Your task to perform on an android device: Open accessibility settings Image 0: 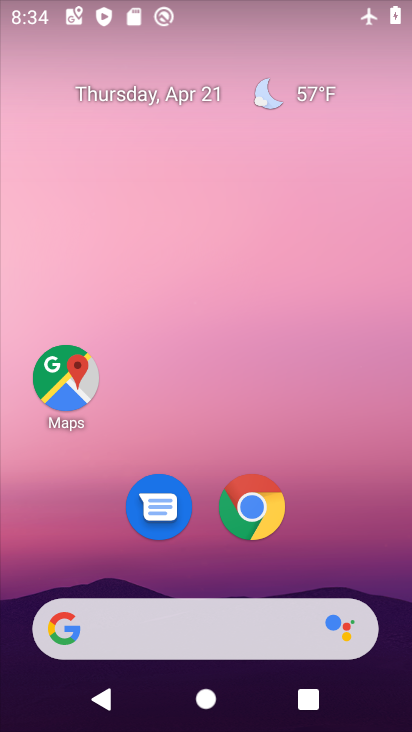
Step 0: drag from (325, 456) to (282, 33)
Your task to perform on an android device: Open accessibility settings Image 1: 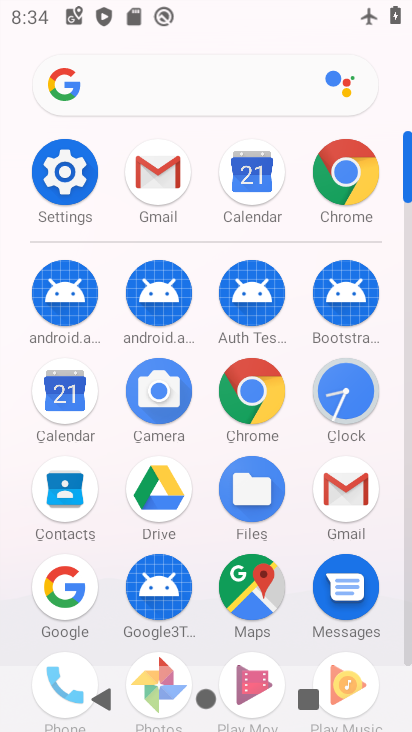
Step 1: click (408, 653)
Your task to perform on an android device: Open accessibility settings Image 2: 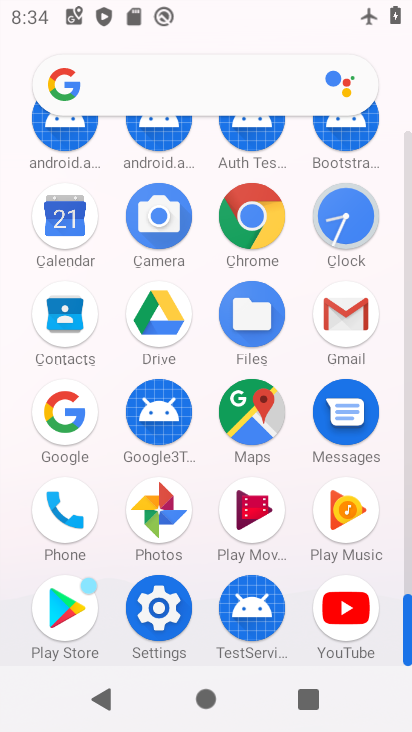
Step 2: click (140, 603)
Your task to perform on an android device: Open accessibility settings Image 3: 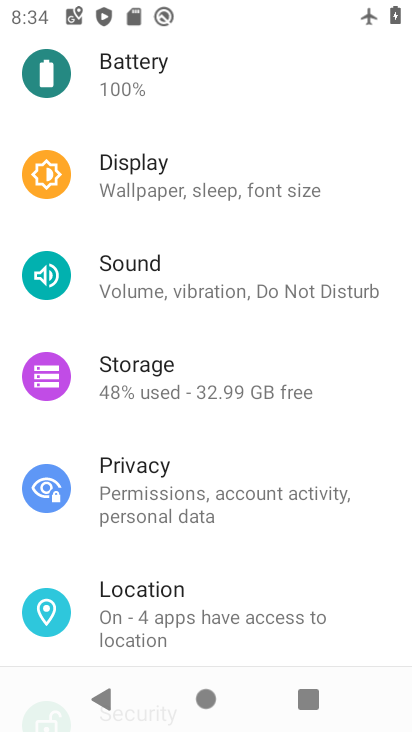
Step 3: drag from (181, 590) to (197, 97)
Your task to perform on an android device: Open accessibility settings Image 4: 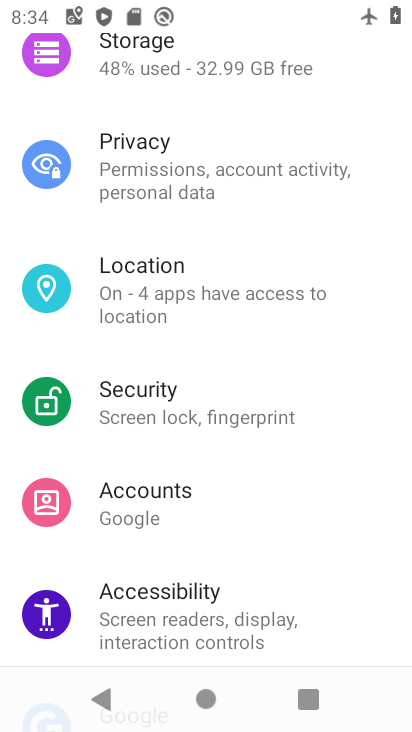
Step 4: drag from (242, 534) to (223, 419)
Your task to perform on an android device: Open accessibility settings Image 5: 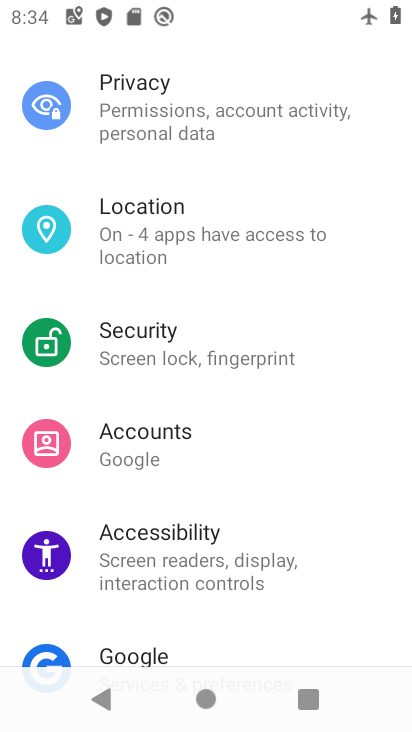
Step 5: click (214, 530)
Your task to perform on an android device: Open accessibility settings Image 6: 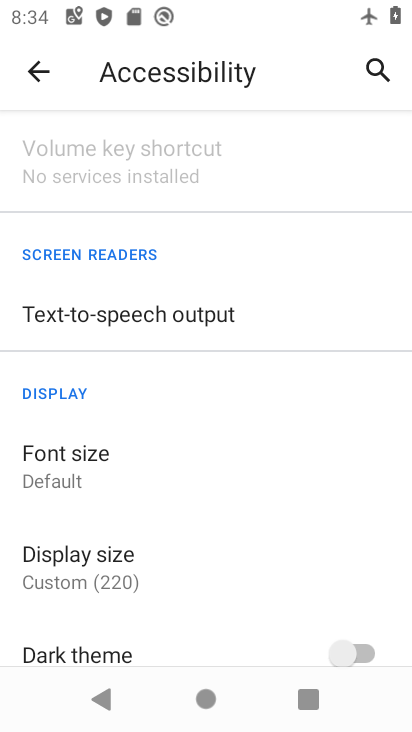
Step 6: task complete